Your task to perform on an android device: set default search engine in the chrome app Image 0: 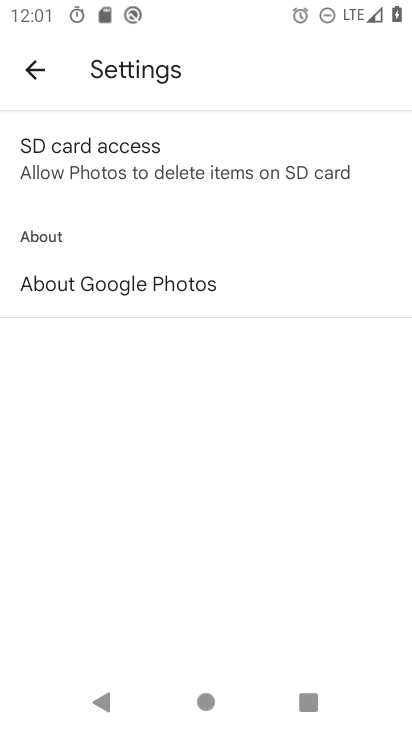
Step 0: press home button
Your task to perform on an android device: set default search engine in the chrome app Image 1: 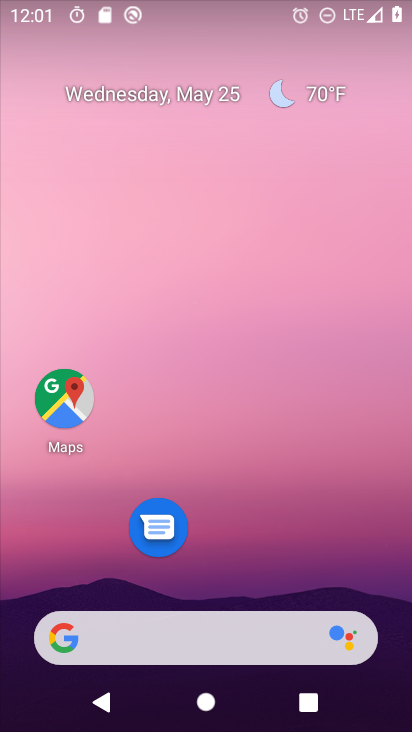
Step 1: drag from (267, 530) to (304, 66)
Your task to perform on an android device: set default search engine in the chrome app Image 2: 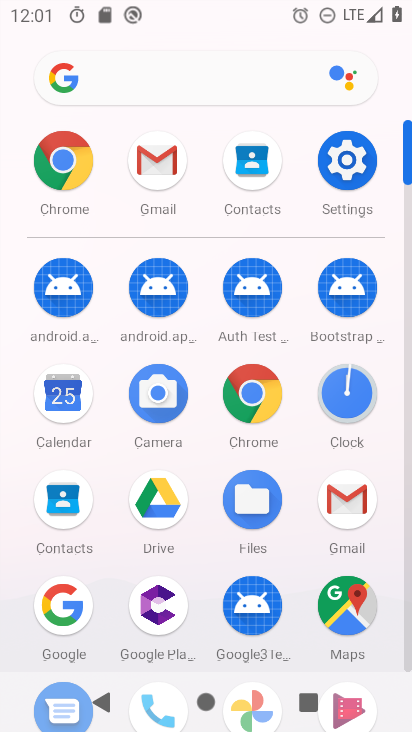
Step 2: click (63, 147)
Your task to perform on an android device: set default search engine in the chrome app Image 3: 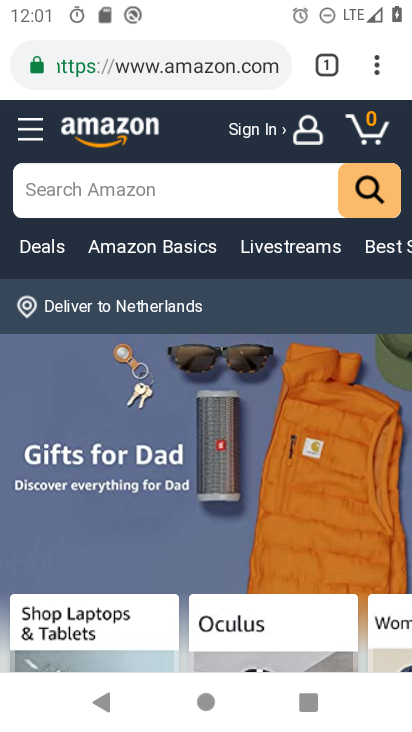
Step 3: click (370, 63)
Your task to perform on an android device: set default search engine in the chrome app Image 4: 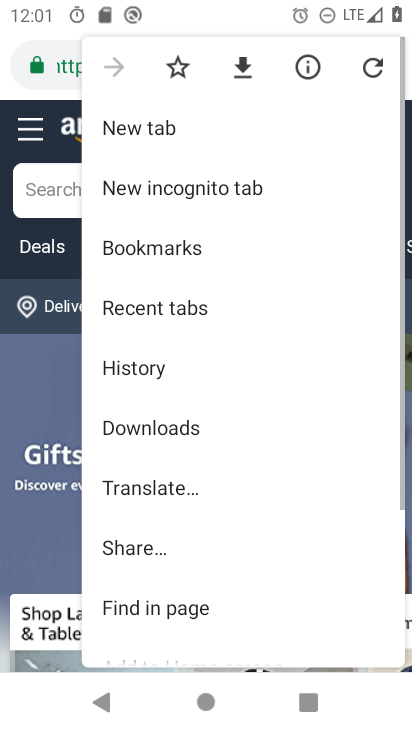
Step 4: drag from (250, 541) to (245, 164)
Your task to perform on an android device: set default search engine in the chrome app Image 5: 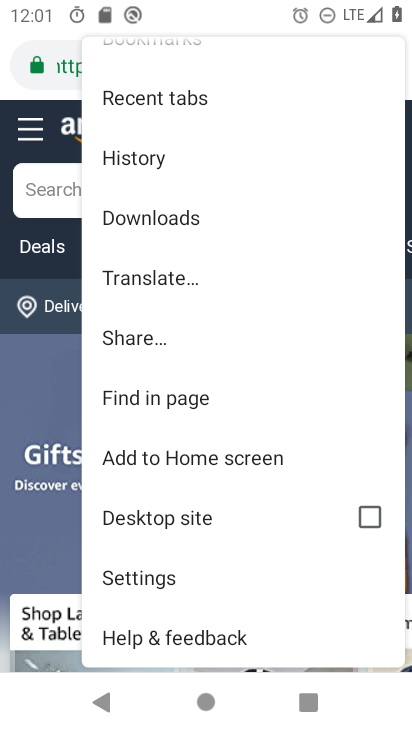
Step 5: click (145, 580)
Your task to perform on an android device: set default search engine in the chrome app Image 6: 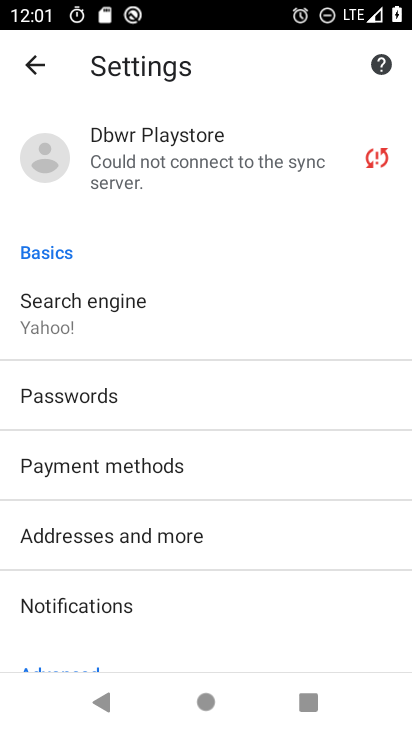
Step 6: click (118, 312)
Your task to perform on an android device: set default search engine in the chrome app Image 7: 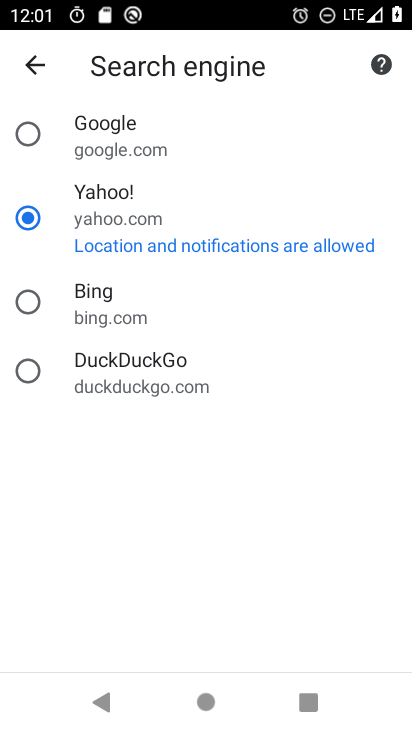
Step 7: click (27, 139)
Your task to perform on an android device: set default search engine in the chrome app Image 8: 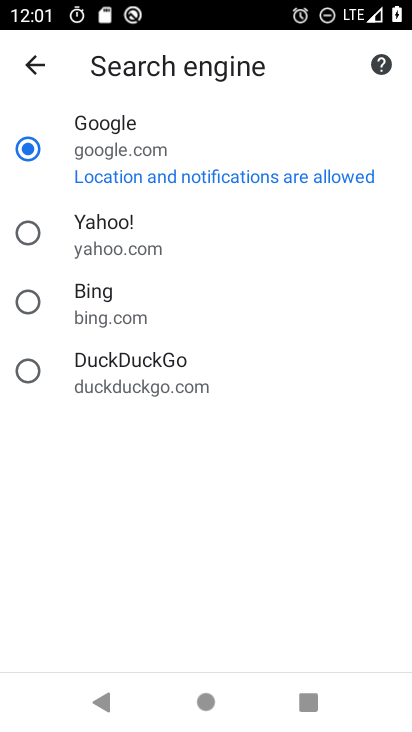
Step 8: task complete